Your task to perform on an android device: turn on bluetooth scan Image 0: 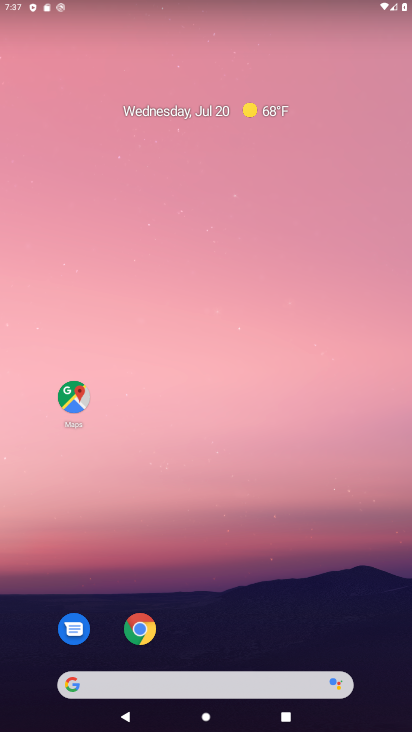
Step 0: drag from (322, 634) to (389, 29)
Your task to perform on an android device: turn on bluetooth scan Image 1: 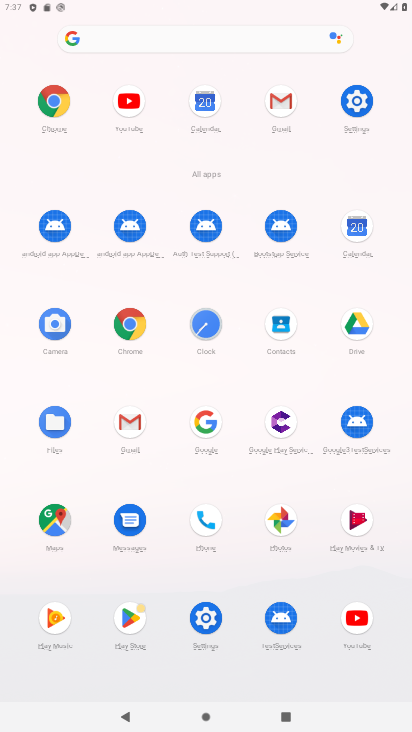
Step 1: click (205, 613)
Your task to perform on an android device: turn on bluetooth scan Image 2: 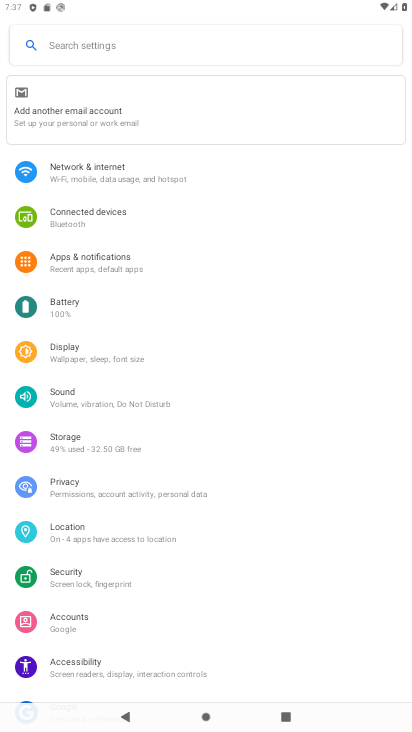
Step 2: click (172, 528)
Your task to perform on an android device: turn on bluetooth scan Image 3: 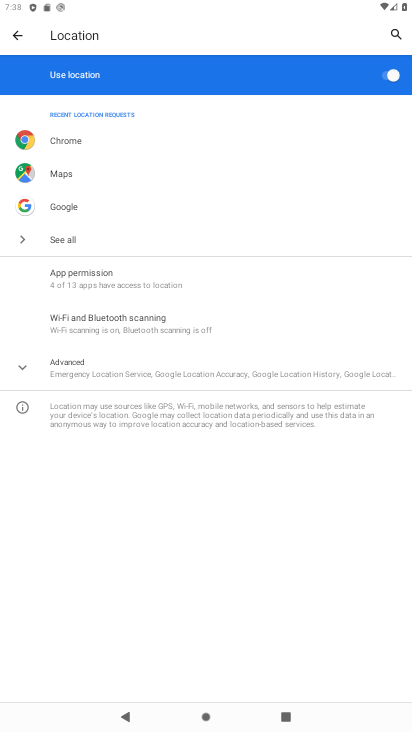
Step 3: click (206, 323)
Your task to perform on an android device: turn on bluetooth scan Image 4: 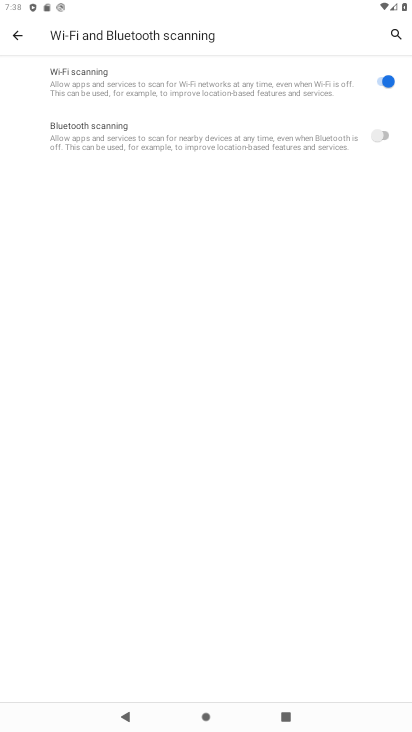
Step 4: click (370, 133)
Your task to perform on an android device: turn on bluetooth scan Image 5: 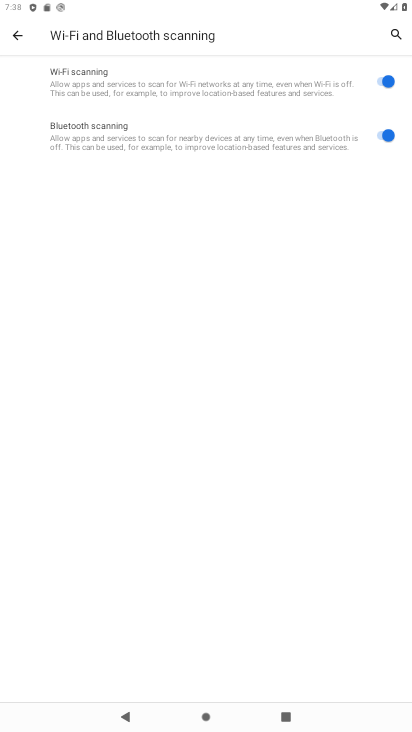
Step 5: task complete